Your task to perform on an android device: Open the map Image 0: 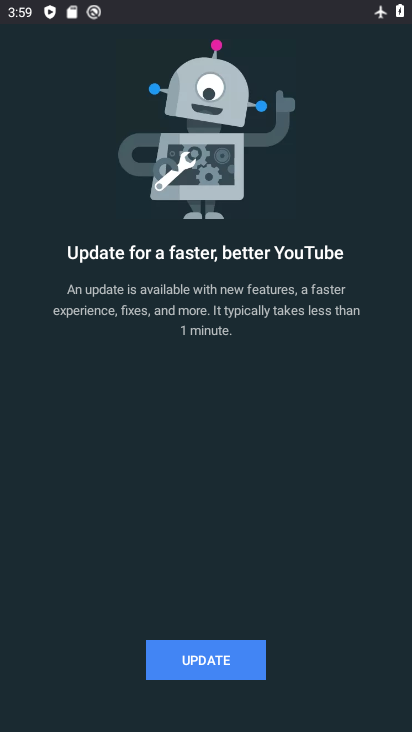
Step 0: press home button
Your task to perform on an android device: Open the map Image 1: 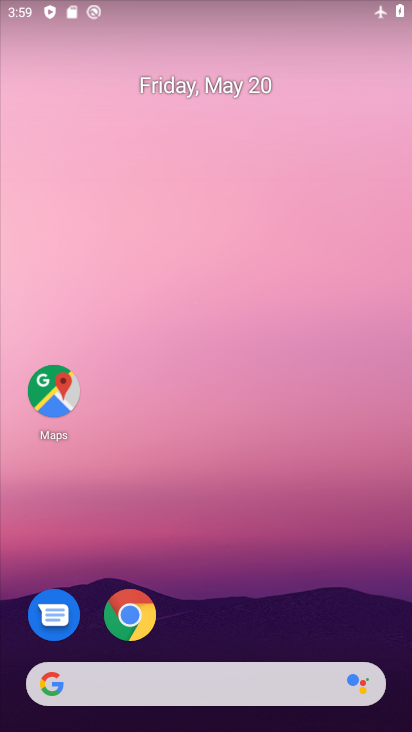
Step 1: drag from (233, 571) to (259, 34)
Your task to perform on an android device: Open the map Image 2: 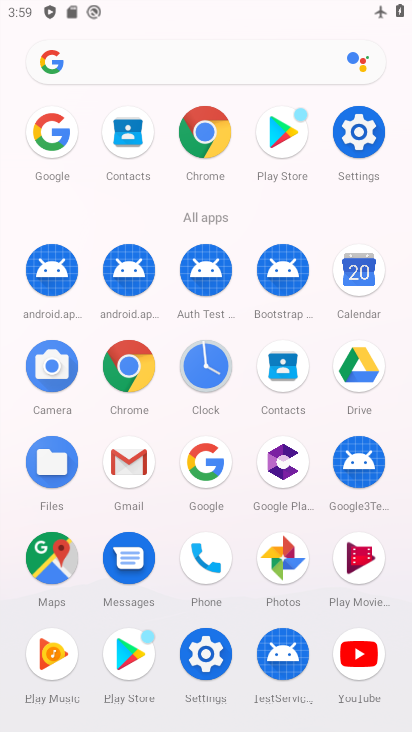
Step 2: click (49, 569)
Your task to perform on an android device: Open the map Image 3: 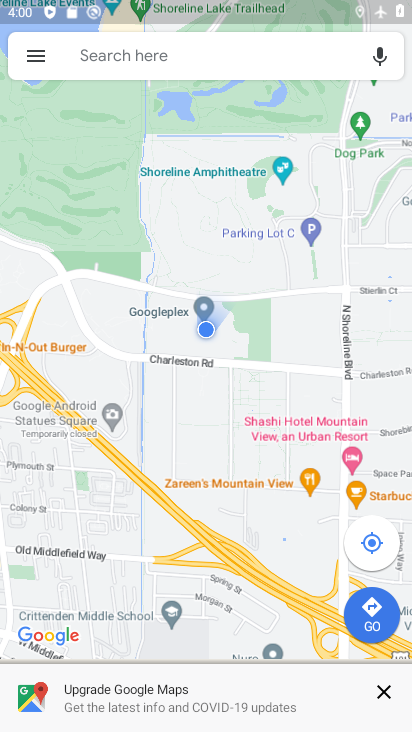
Step 3: task complete